Your task to perform on an android device: Check the weather Image 0: 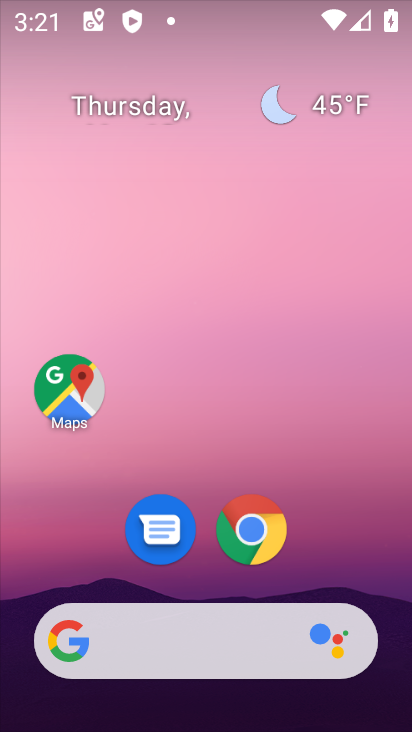
Step 0: drag from (351, 511) to (309, 15)
Your task to perform on an android device: Check the weather Image 1: 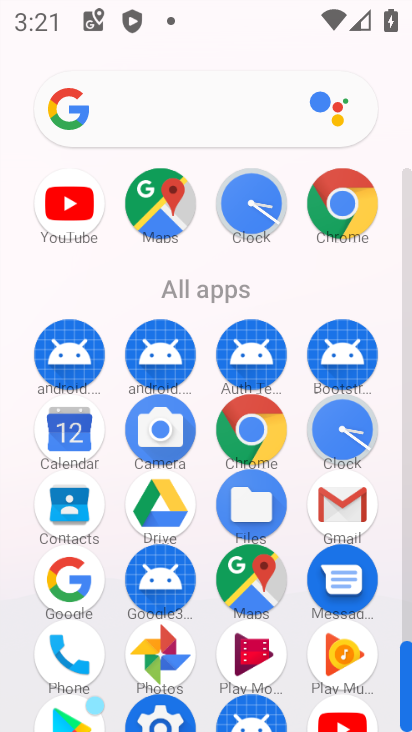
Step 1: press home button
Your task to perform on an android device: Check the weather Image 2: 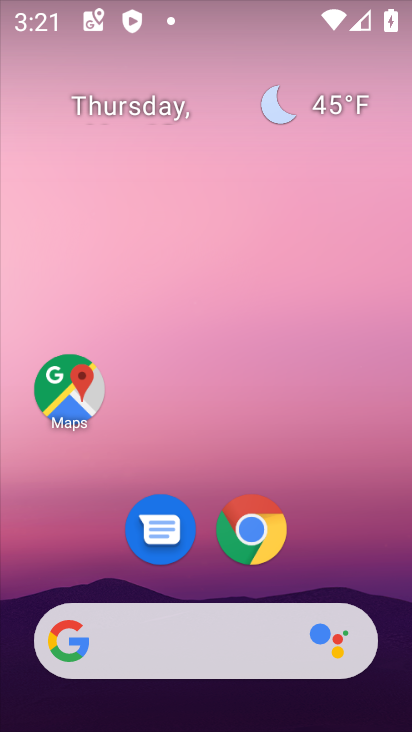
Step 2: click (355, 101)
Your task to perform on an android device: Check the weather Image 3: 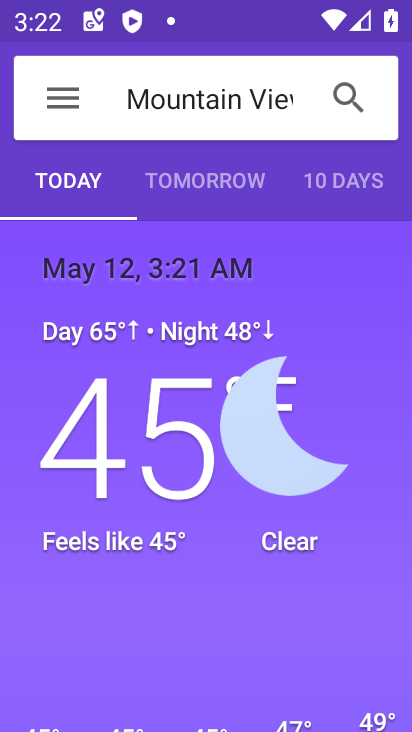
Step 3: task complete